Your task to perform on an android device: Search for pizza restaurants on Maps Image 0: 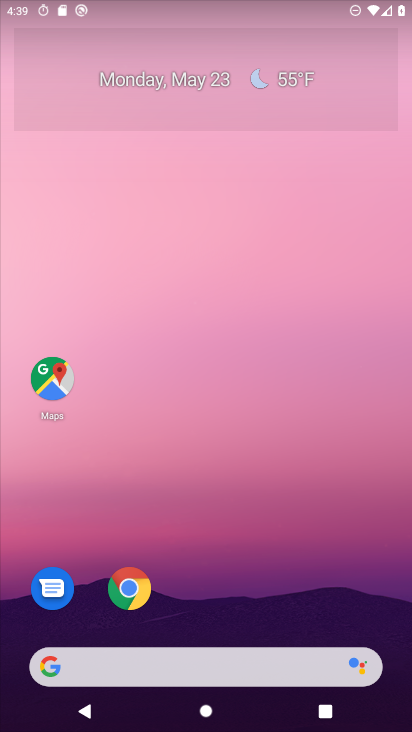
Step 0: click (60, 379)
Your task to perform on an android device: Search for pizza restaurants on Maps Image 1: 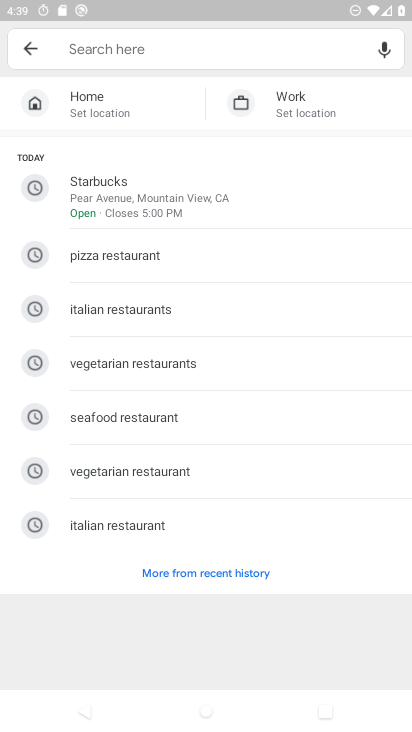
Step 1: click (146, 41)
Your task to perform on an android device: Search for pizza restaurants on Maps Image 2: 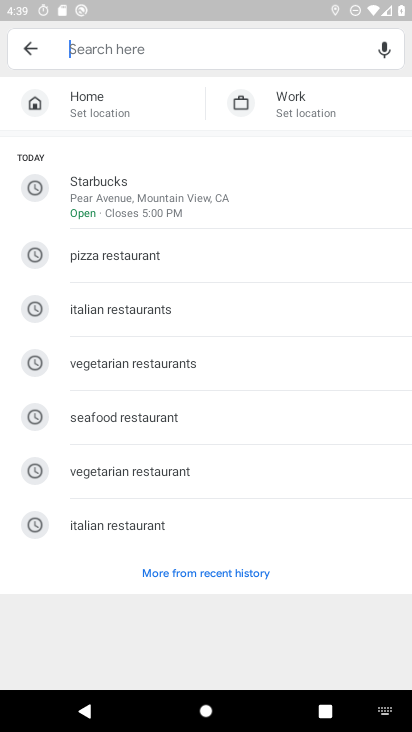
Step 2: click (146, 249)
Your task to perform on an android device: Search for pizza restaurants on Maps Image 3: 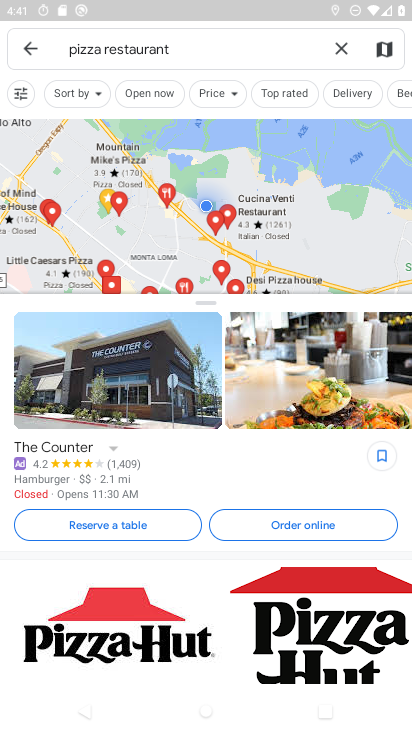
Step 3: task complete